Your task to perform on an android device: change the clock display to show seconds Image 0: 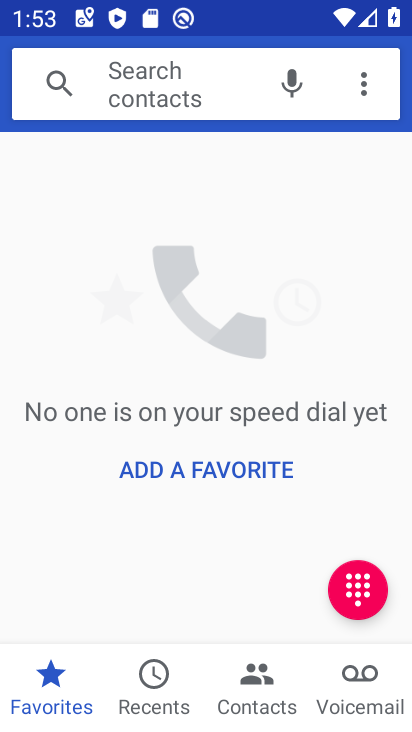
Step 0: press home button
Your task to perform on an android device: change the clock display to show seconds Image 1: 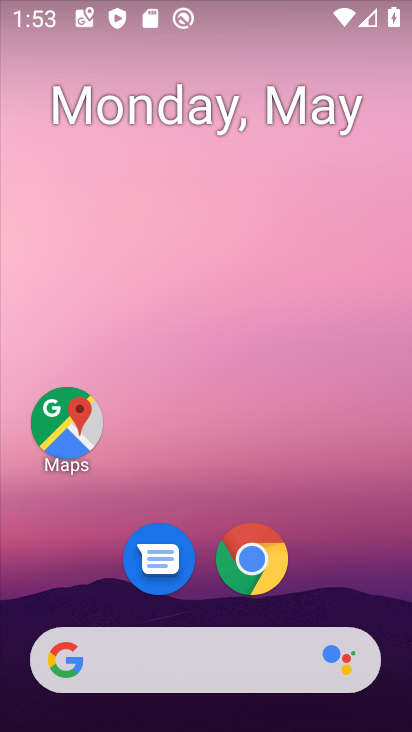
Step 1: drag from (148, 715) to (140, 62)
Your task to perform on an android device: change the clock display to show seconds Image 2: 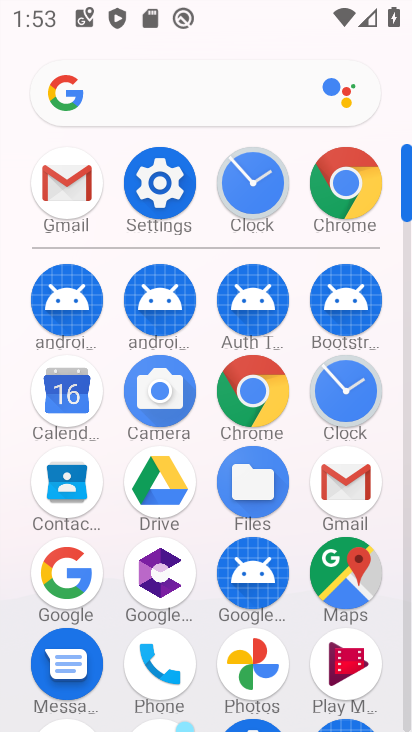
Step 2: click (342, 394)
Your task to perform on an android device: change the clock display to show seconds Image 3: 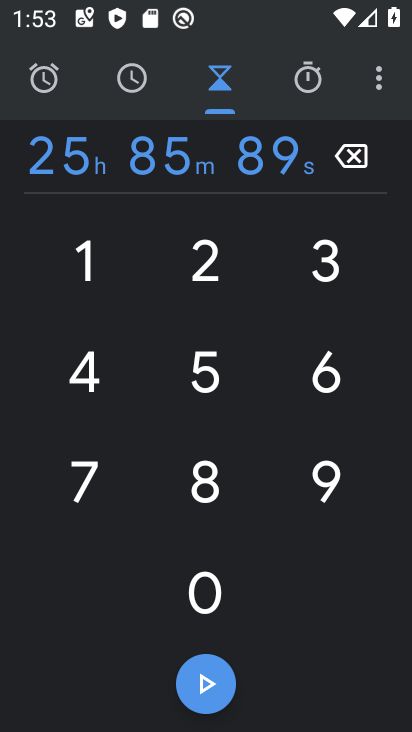
Step 3: click (394, 73)
Your task to perform on an android device: change the clock display to show seconds Image 4: 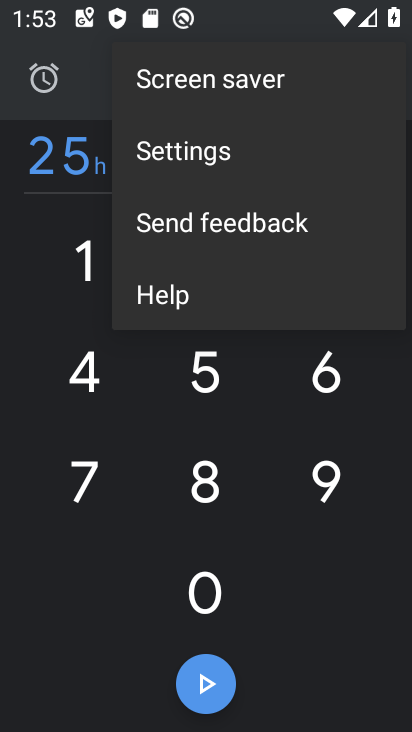
Step 4: click (245, 170)
Your task to perform on an android device: change the clock display to show seconds Image 5: 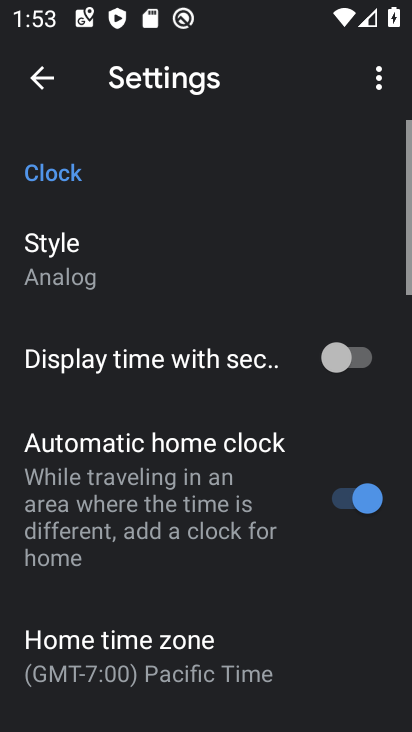
Step 5: click (354, 358)
Your task to perform on an android device: change the clock display to show seconds Image 6: 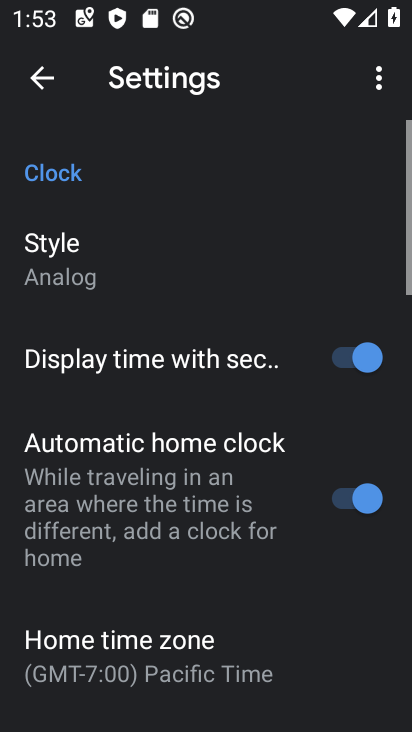
Step 6: task complete